Your task to perform on an android device: add a contact in the contacts app Image 0: 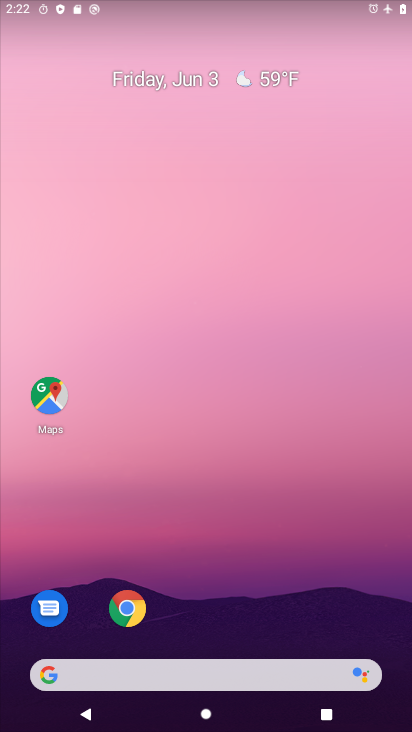
Step 0: drag from (198, 662) to (289, 265)
Your task to perform on an android device: add a contact in the contacts app Image 1: 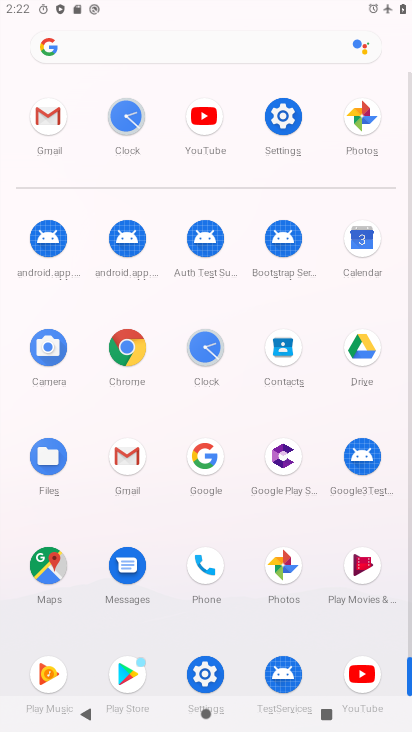
Step 1: click (285, 347)
Your task to perform on an android device: add a contact in the contacts app Image 2: 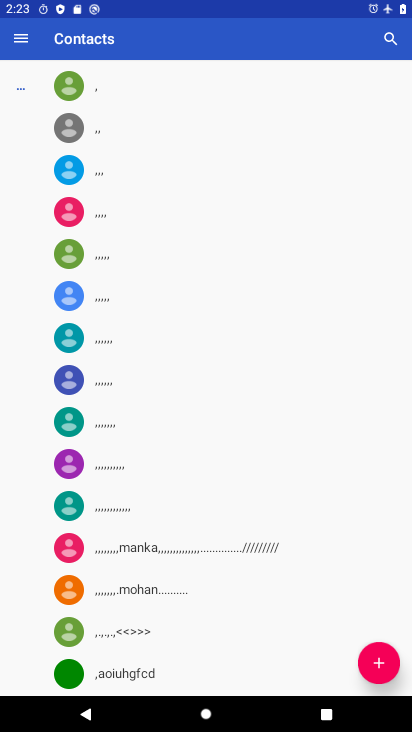
Step 2: click (381, 652)
Your task to perform on an android device: add a contact in the contacts app Image 3: 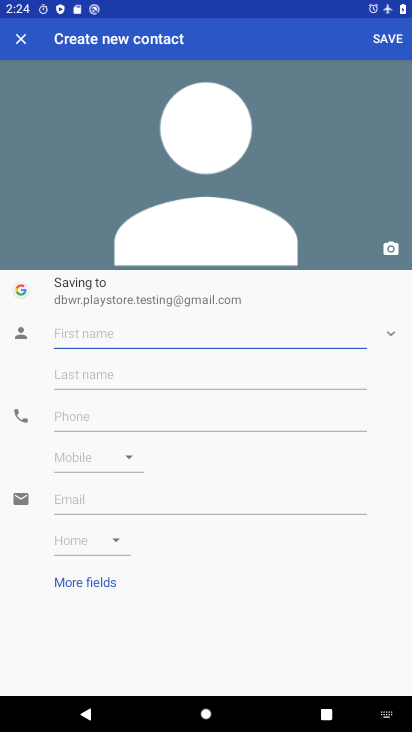
Step 3: type "cxvxv"
Your task to perform on an android device: add a contact in the contacts app Image 4: 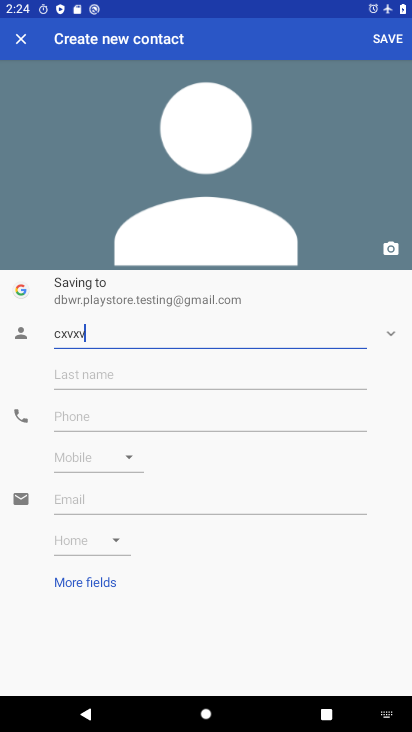
Step 4: click (338, 426)
Your task to perform on an android device: add a contact in the contacts app Image 5: 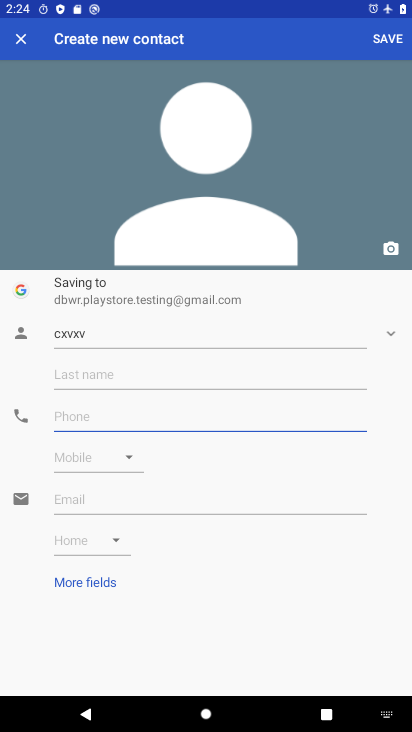
Step 5: type "6776867"
Your task to perform on an android device: add a contact in the contacts app Image 6: 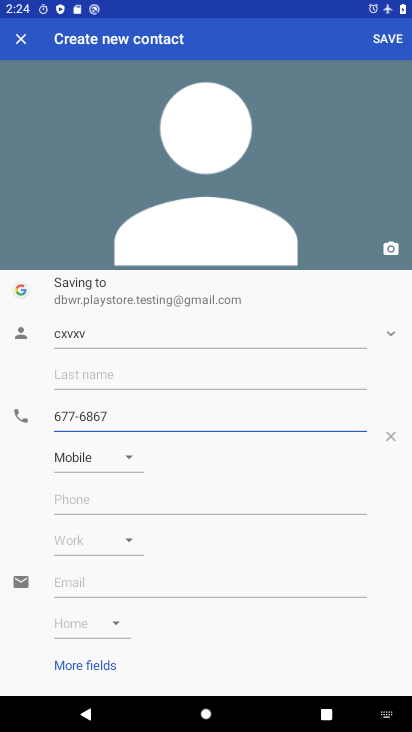
Step 6: click (385, 48)
Your task to perform on an android device: add a contact in the contacts app Image 7: 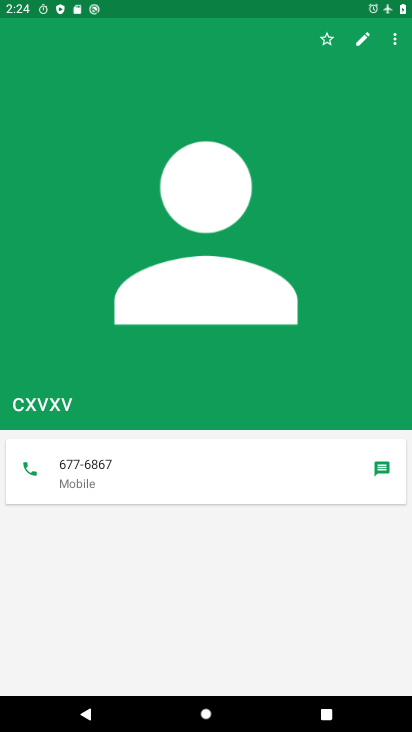
Step 7: task complete